Your task to perform on an android device: Search for Mexican restaurants on Maps Image 0: 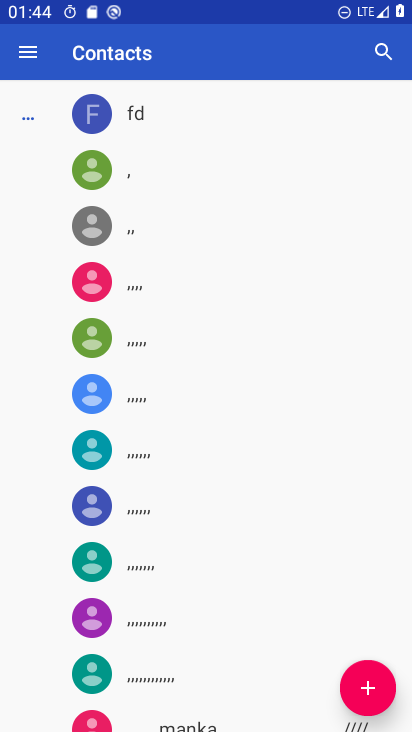
Step 0: press home button
Your task to perform on an android device: Search for Mexican restaurants on Maps Image 1: 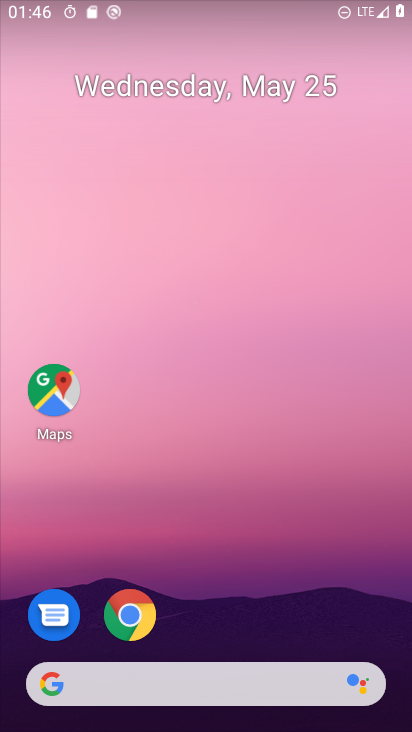
Step 1: drag from (260, 702) to (386, 64)
Your task to perform on an android device: Search for Mexican restaurants on Maps Image 2: 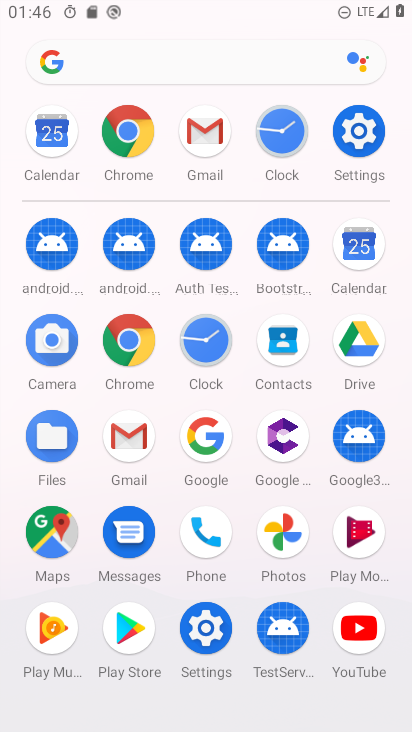
Step 2: click (46, 523)
Your task to perform on an android device: Search for Mexican restaurants on Maps Image 3: 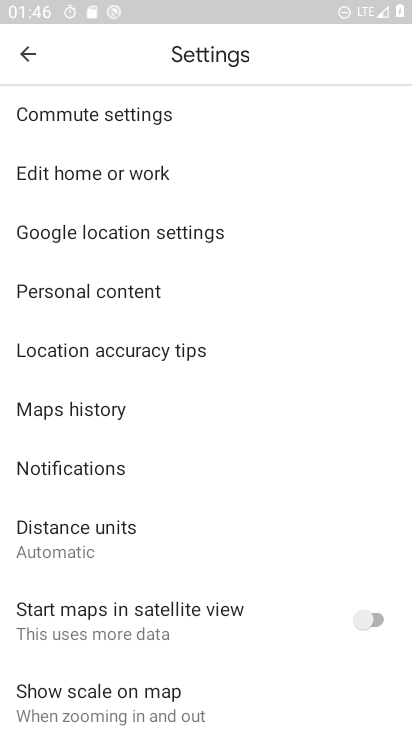
Step 3: click (28, 66)
Your task to perform on an android device: Search for Mexican restaurants on Maps Image 4: 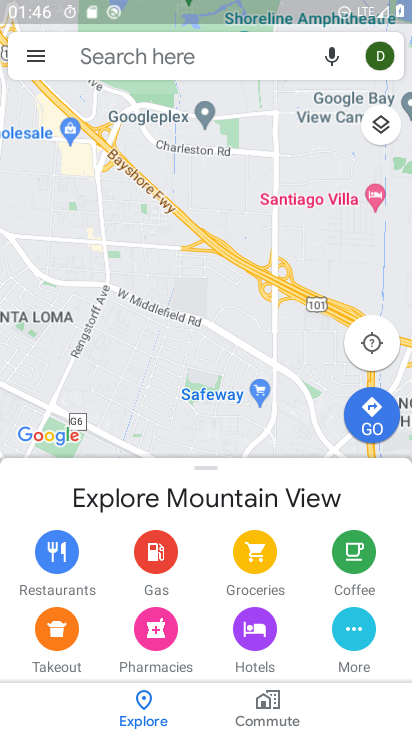
Step 4: click (116, 49)
Your task to perform on an android device: Search for Mexican restaurants on Maps Image 5: 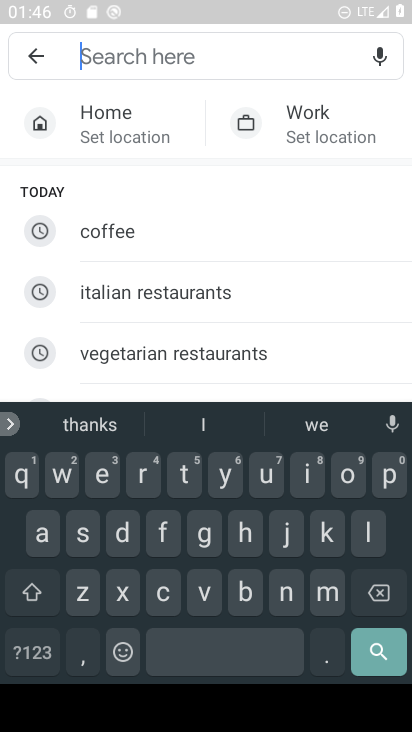
Step 5: click (345, 604)
Your task to perform on an android device: Search for Mexican restaurants on Maps Image 6: 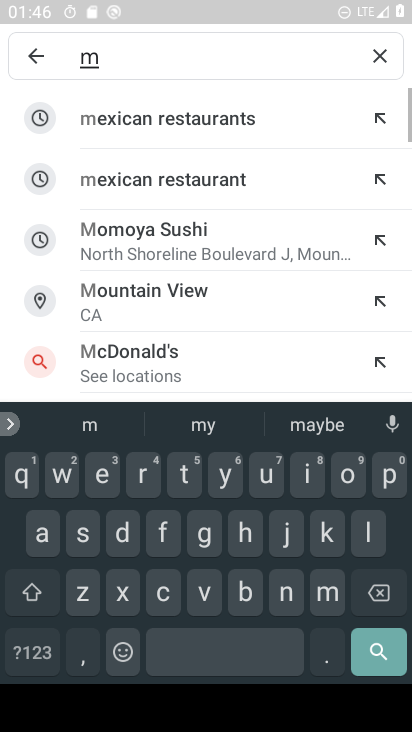
Step 6: click (130, 129)
Your task to perform on an android device: Search for Mexican restaurants on Maps Image 7: 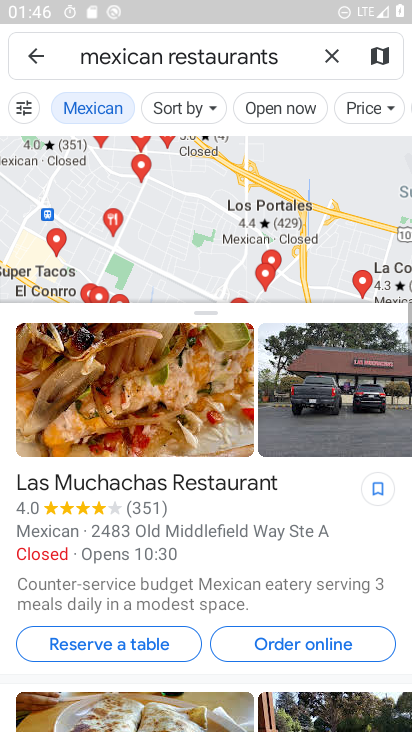
Step 7: task complete